Your task to perform on an android device: Go to network settings Image 0: 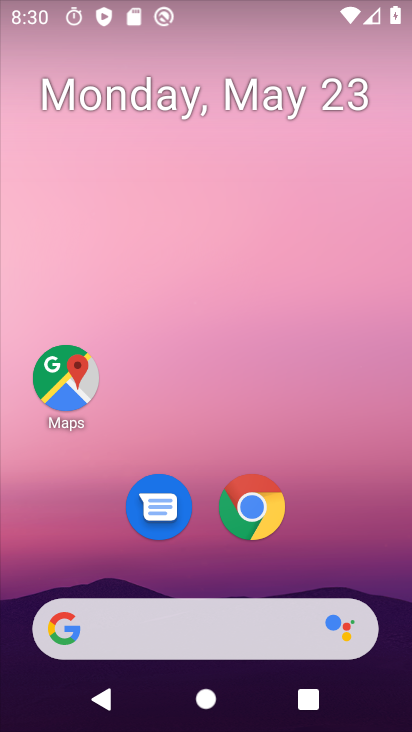
Step 0: drag from (322, 414) to (269, 11)
Your task to perform on an android device: Go to network settings Image 1: 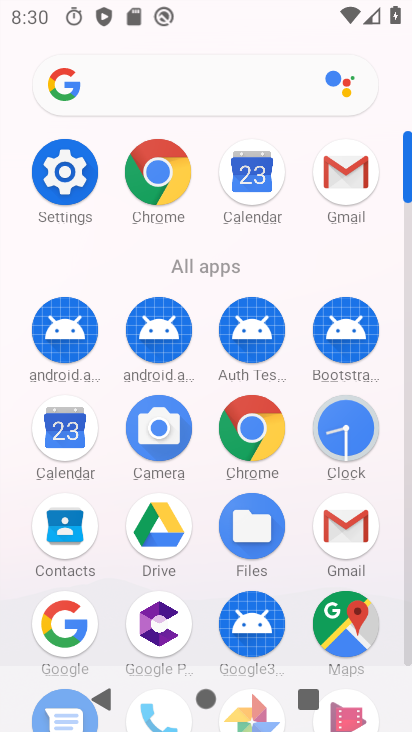
Step 1: click (56, 160)
Your task to perform on an android device: Go to network settings Image 2: 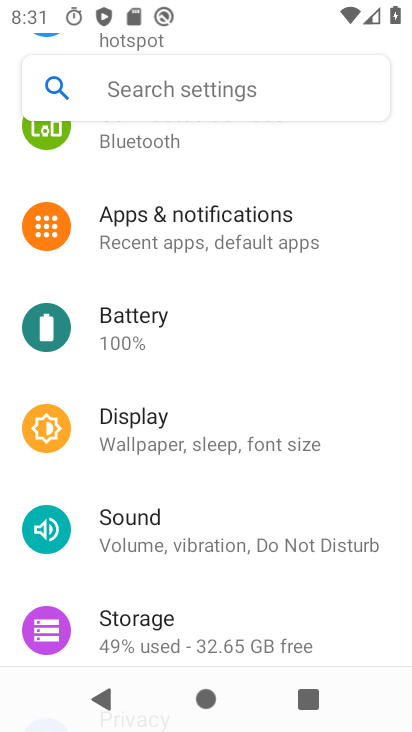
Step 2: drag from (268, 187) to (320, 634)
Your task to perform on an android device: Go to network settings Image 3: 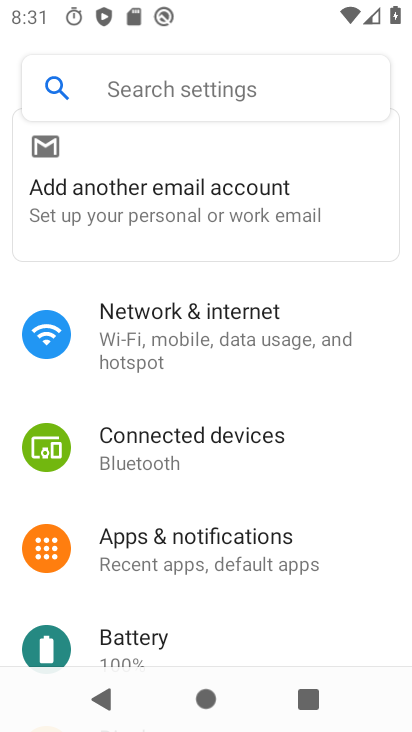
Step 3: click (168, 302)
Your task to perform on an android device: Go to network settings Image 4: 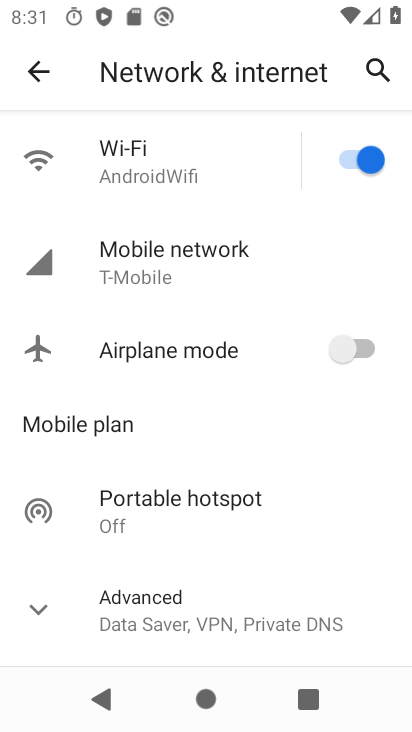
Step 4: task complete